Your task to perform on an android device: Open Wikipedia Image 0: 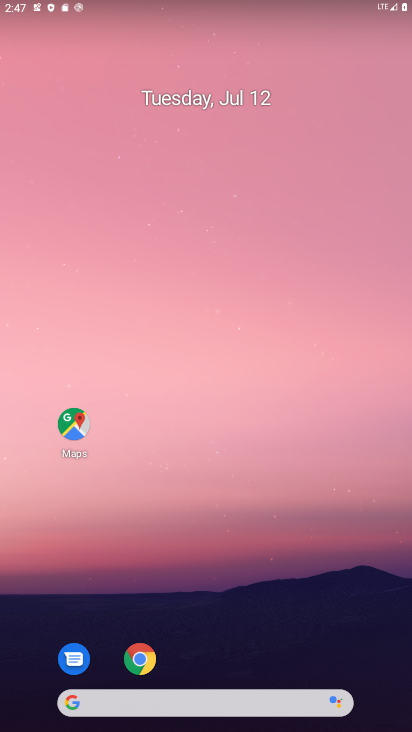
Step 0: click (142, 658)
Your task to perform on an android device: Open Wikipedia Image 1: 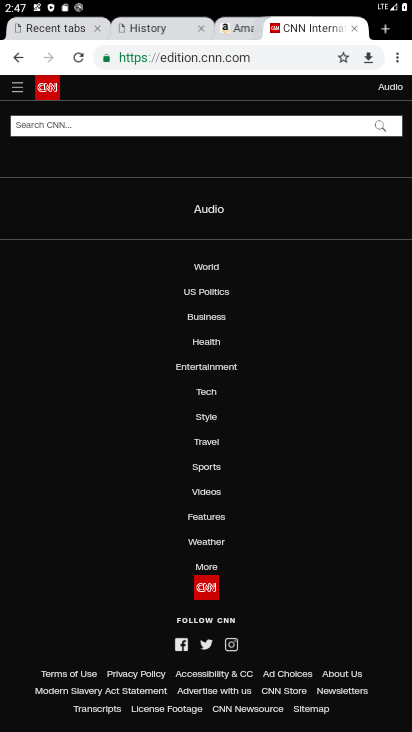
Step 1: click (398, 60)
Your task to perform on an android device: Open Wikipedia Image 2: 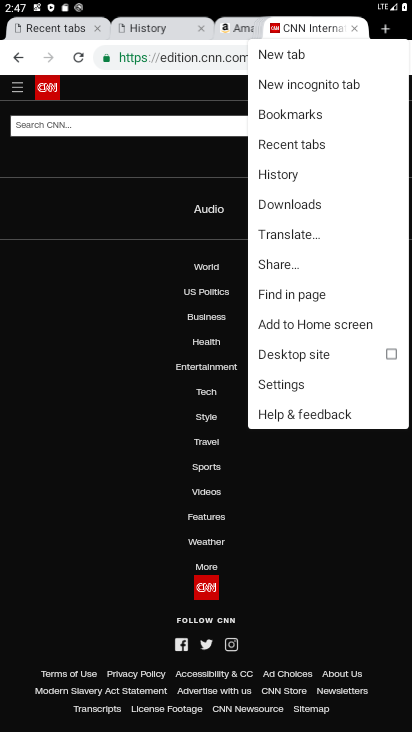
Step 2: click (281, 52)
Your task to perform on an android device: Open Wikipedia Image 3: 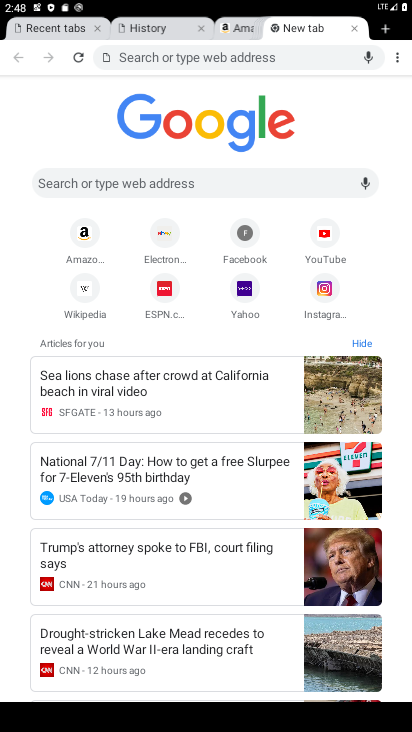
Step 3: click (87, 294)
Your task to perform on an android device: Open Wikipedia Image 4: 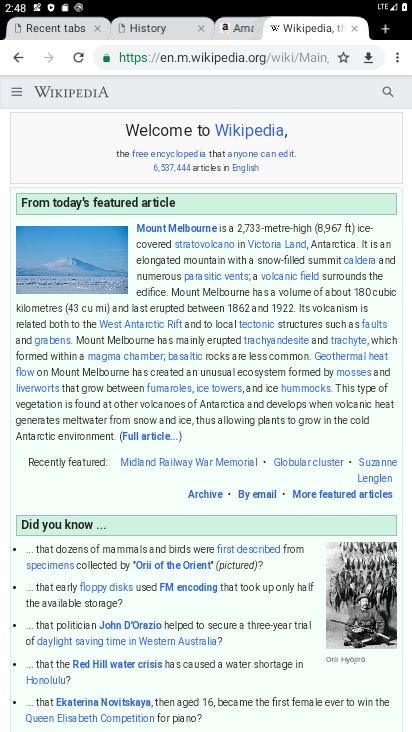
Step 4: task complete